Your task to perform on an android device: Do I have any events tomorrow? Image 0: 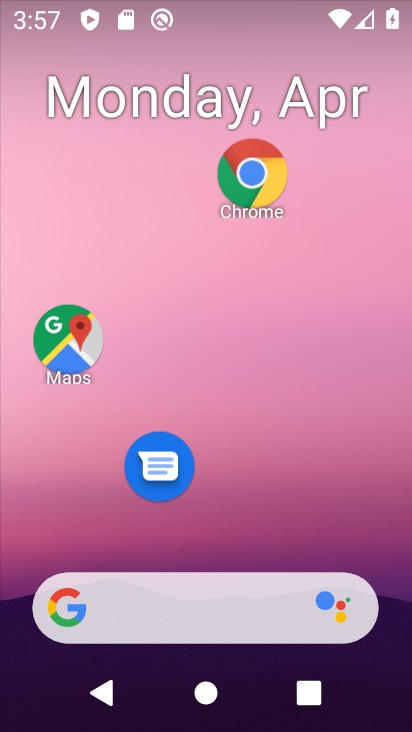
Step 0: drag from (362, 534) to (287, 134)
Your task to perform on an android device: Do I have any events tomorrow? Image 1: 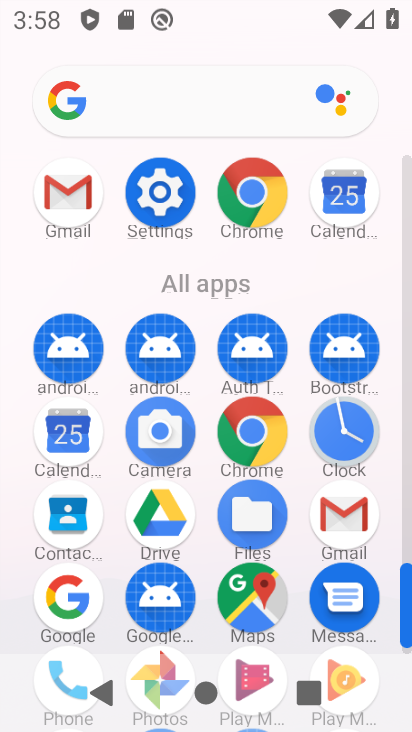
Step 1: click (68, 426)
Your task to perform on an android device: Do I have any events tomorrow? Image 2: 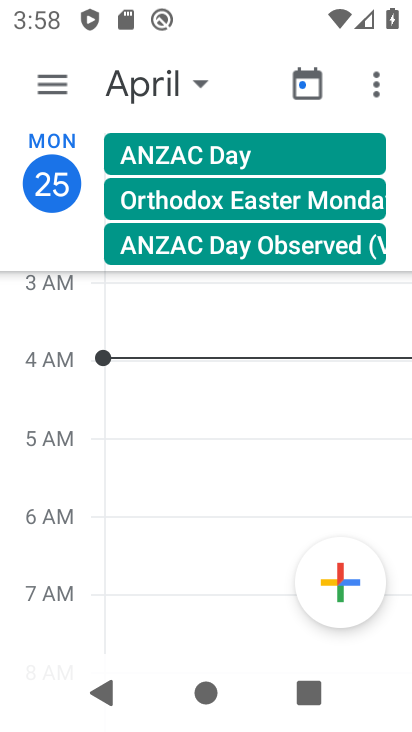
Step 2: click (60, 77)
Your task to perform on an android device: Do I have any events tomorrow? Image 3: 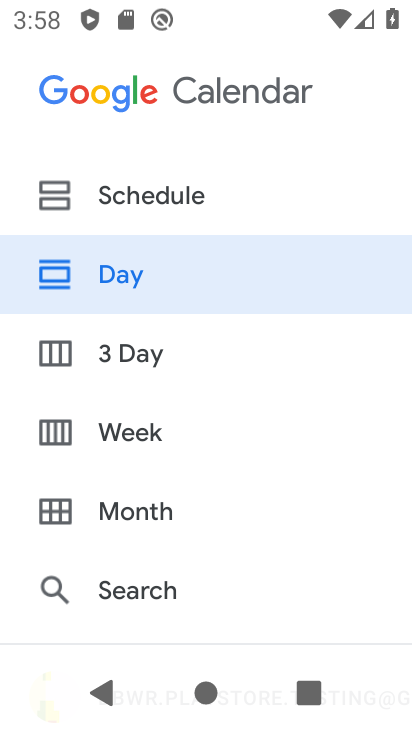
Step 3: drag from (296, 538) to (250, 226)
Your task to perform on an android device: Do I have any events tomorrow? Image 4: 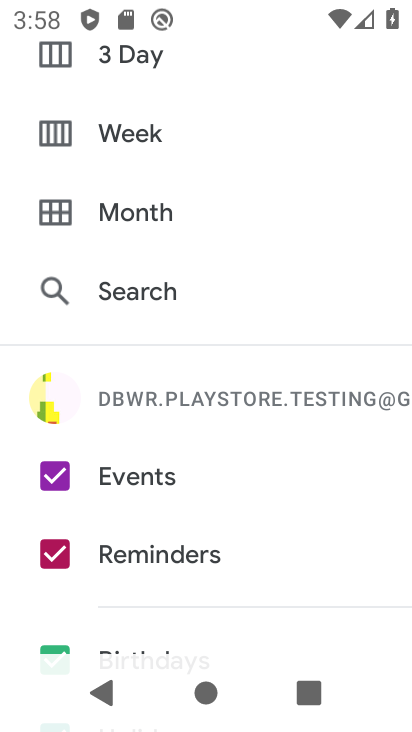
Step 4: drag from (281, 493) to (278, 351)
Your task to perform on an android device: Do I have any events tomorrow? Image 5: 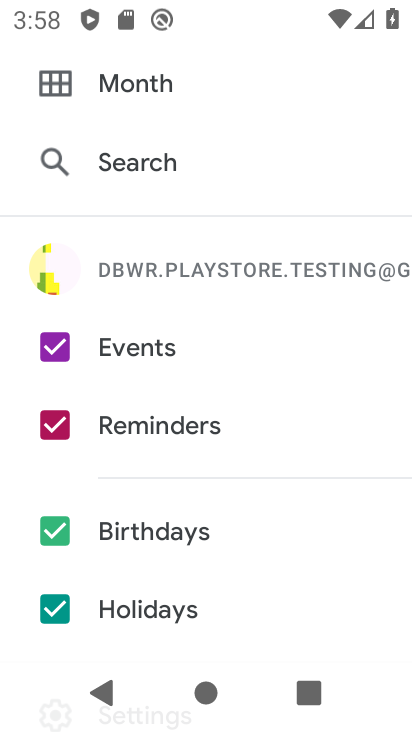
Step 5: click (46, 607)
Your task to perform on an android device: Do I have any events tomorrow? Image 6: 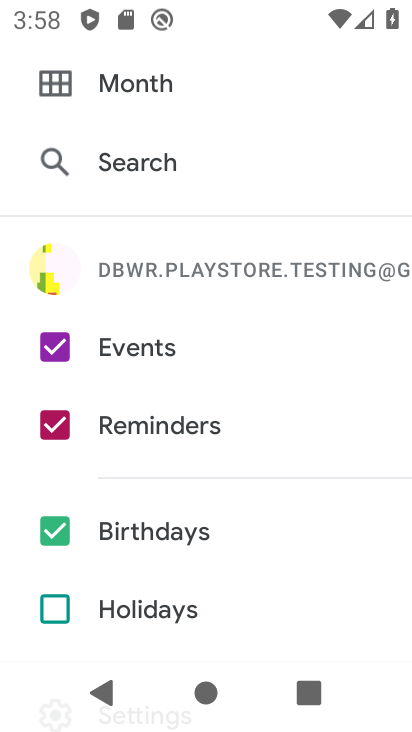
Step 6: click (59, 532)
Your task to perform on an android device: Do I have any events tomorrow? Image 7: 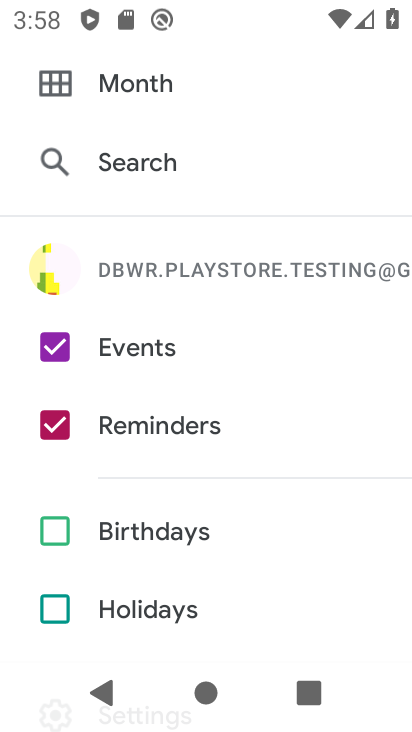
Step 7: click (44, 442)
Your task to perform on an android device: Do I have any events tomorrow? Image 8: 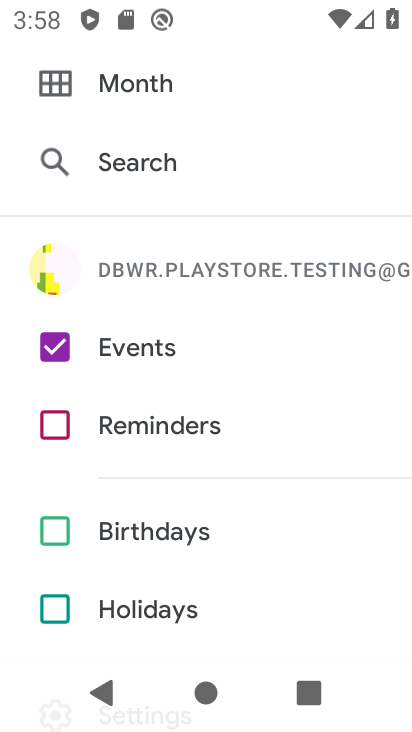
Step 8: click (44, 442)
Your task to perform on an android device: Do I have any events tomorrow? Image 9: 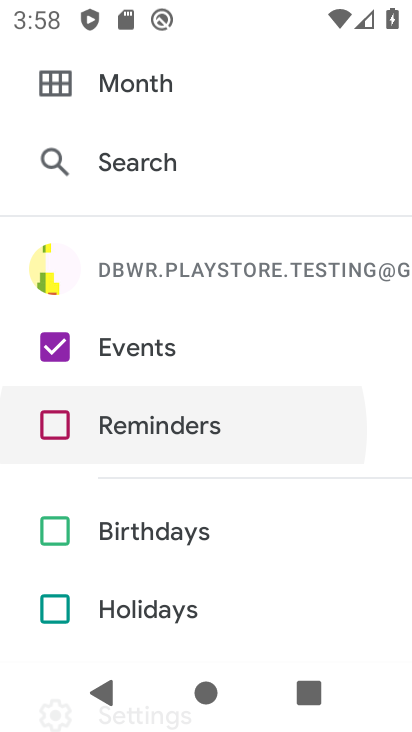
Step 9: click (44, 442)
Your task to perform on an android device: Do I have any events tomorrow? Image 10: 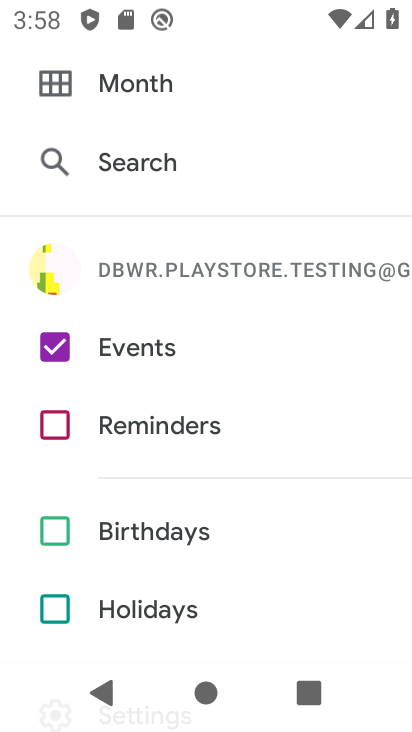
Step 10: drag from (225, 226) to (247, 403)
Your task to perform on an android device: Do I have any events tomorrow? Image 11: 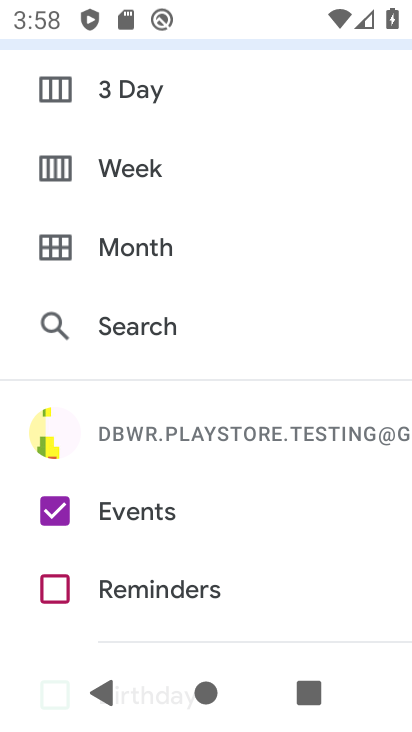
Step 11: click (176, 98)
Your task to perform on an android device: Do I have any events tomorrow? Image 12: 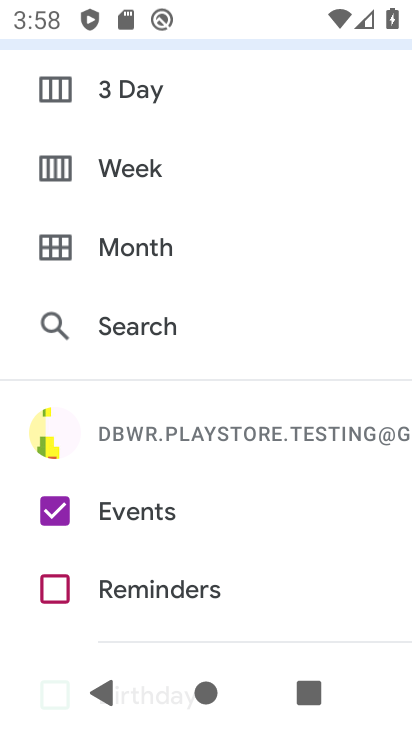
Step 12: click (176, 98)
Your task to perform on an android device: Do I have any events tomorrow? Image 13: 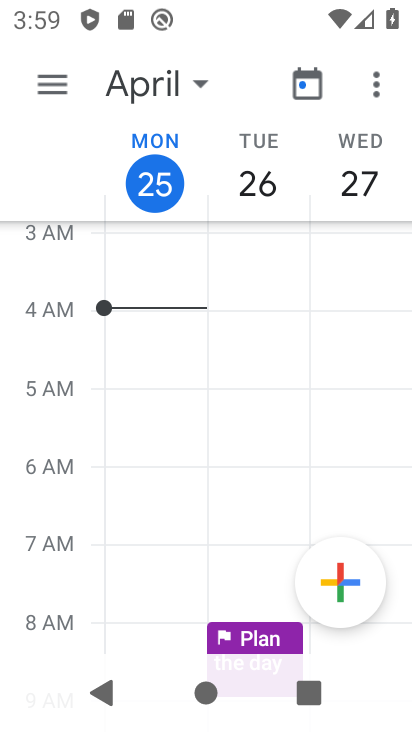
Step 13: click (224, 154)
Your task to perform on an android device: Do I have any events tomorrow? Image 14: 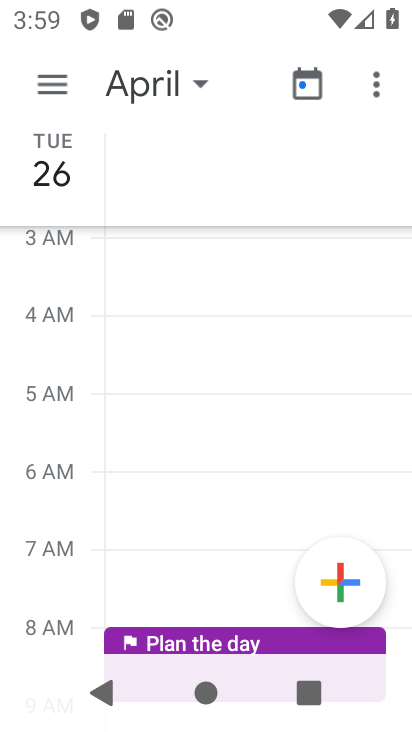
Step 14: task complete